Your task to perform on an android device: toggle data saver in the chrome app Image 0: 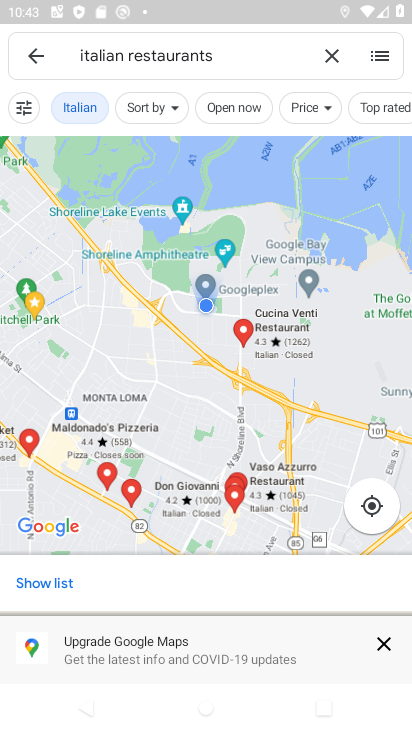
Step 0: drag from (240, 641) to (200, 235)
Your task to perform on an android device: toggle data saver in the chrome app Image 1: 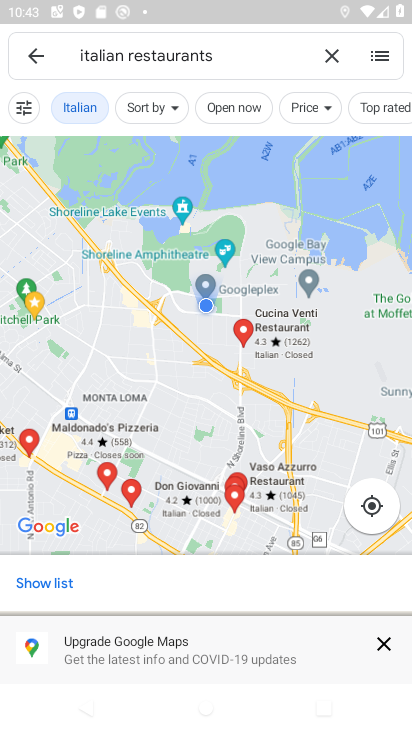
Step 1: click (46, 53)
Your task to perform on an android device: toggle data saver in the chrome app Image 2: 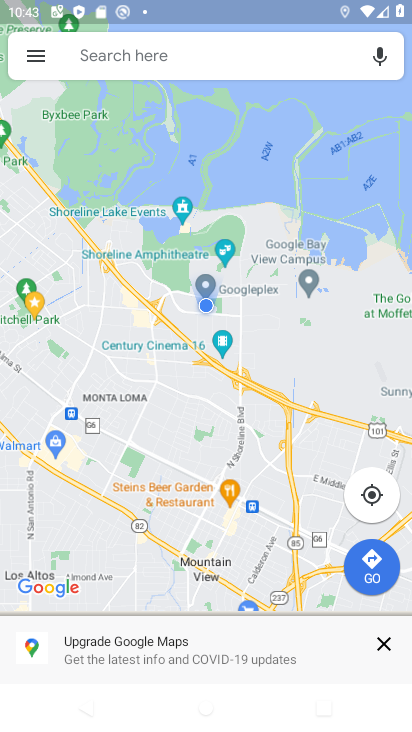
Step 2: press back button
Your task to perform on an android device: toggle data saver in the chrome app Image 3: 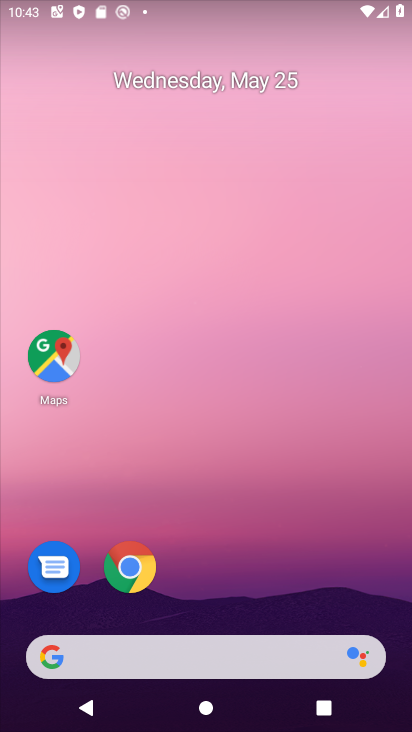
Step 3: press home button
Your task to perform on an android device: toggle data saver in the chrome app Image 4: 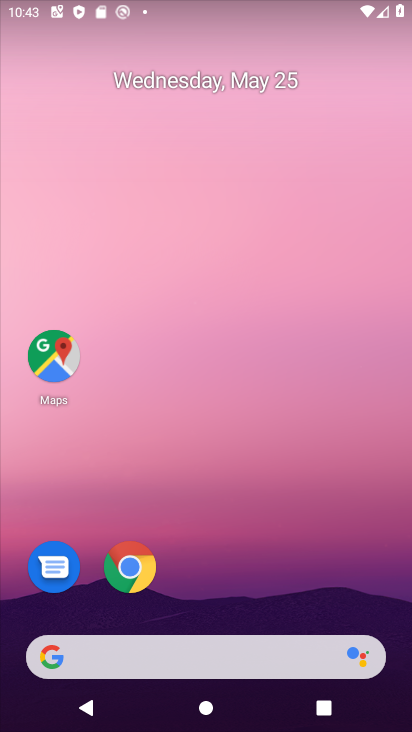
Step 4: drag from (316, 690) to (236, 4)
Your task to perform on an android device: toggle data saver in the chrome app Image 5: 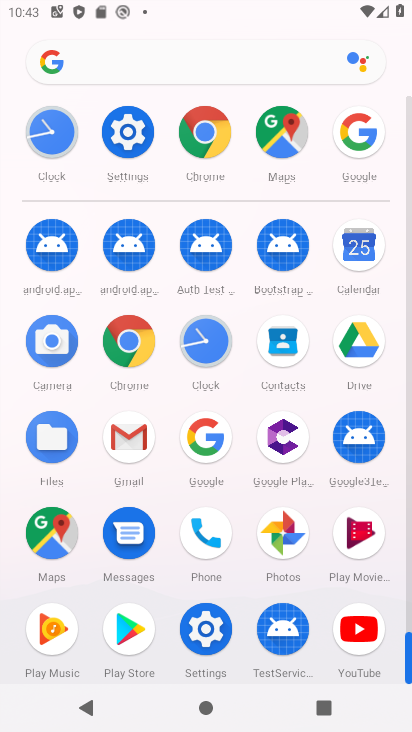
Step 5: drag from (238, 526) to (123, 85)
Your task to perform on an android device: toggle data saver in the chrome app Image 6: 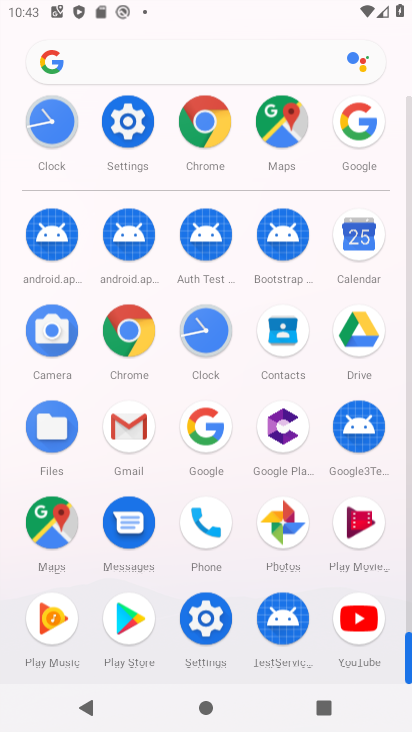
Step 6: drag from (279, 635) to (145, 93)
Your task to perform on an android device: toggle data saver in the chrome app Image 7: 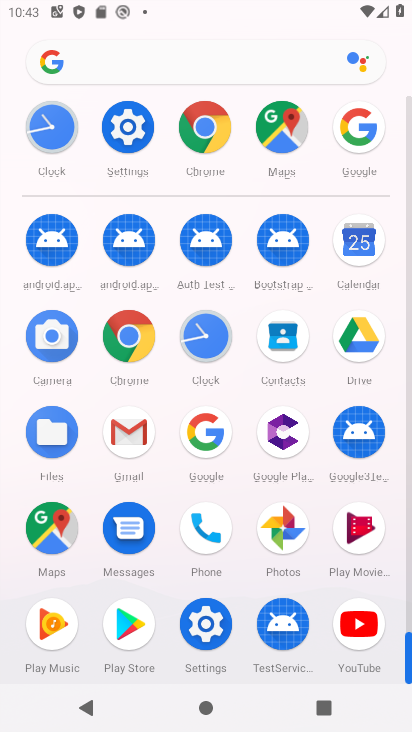
Step 7: click (212, 133)
Your task to perform on an android device: toggle data saver in the chrome app Image 8: 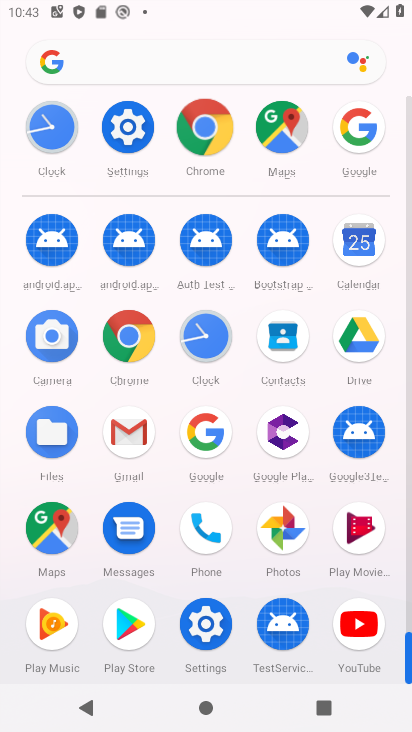
Step 8: click (212, 133)
Your task to perform on an android device: toggle data saver in the chrome app Image 9: 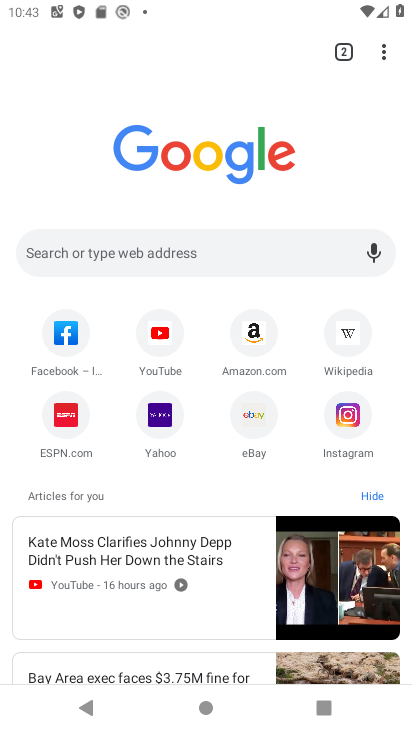
Step 9: drag from (383, 57) to (195, 439)
Your task to perform on an android device: toggle data saver in the chrome app Image 10: 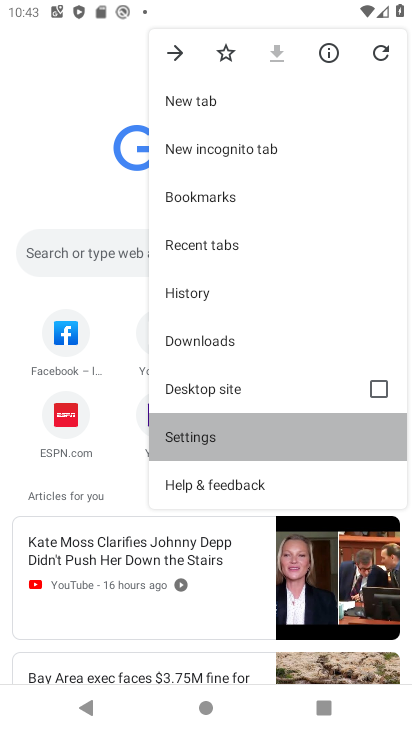
Step 10: click (200, 437)
Your task to perform on an android device: toggle data saver in the chrome app Image 11: 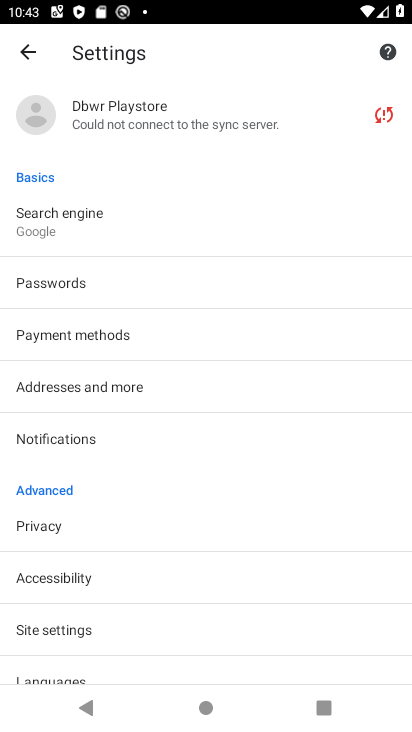
Step 11: drag from (148, 429) to (137, 171)
Your task to perform on an android device: toggle data saver in the chrome app Image 12: 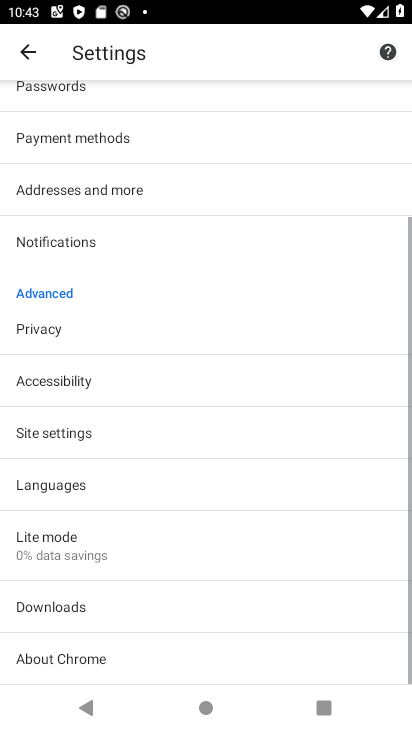
Step 12: drag from (184, 453) to (199, 264)
Your task to perform on an android device: toggle data saver in the chrome app Image 13: 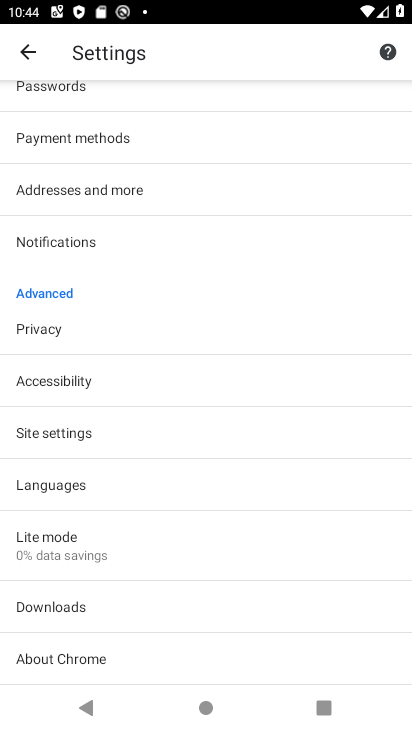
Step 13: drag from (150, 462) to (141, 165)
Your task to perform on an android device: toggle data saver in the chrome app Image 14: 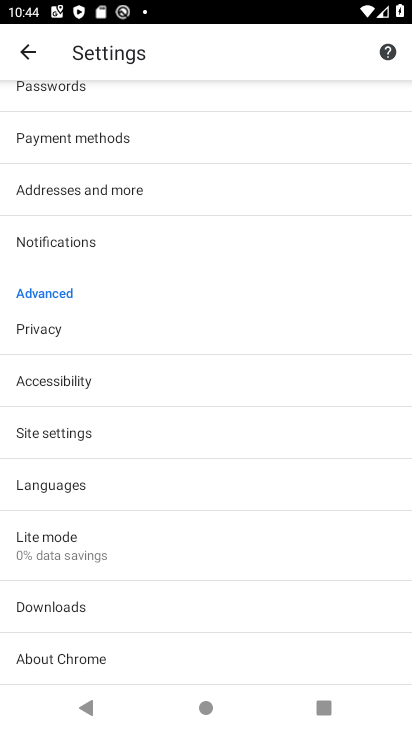
Step 14: drag from (179, 435) to (206, 92)
Your task to perform on an android device: toggle data saver in the chrome app Image 15: 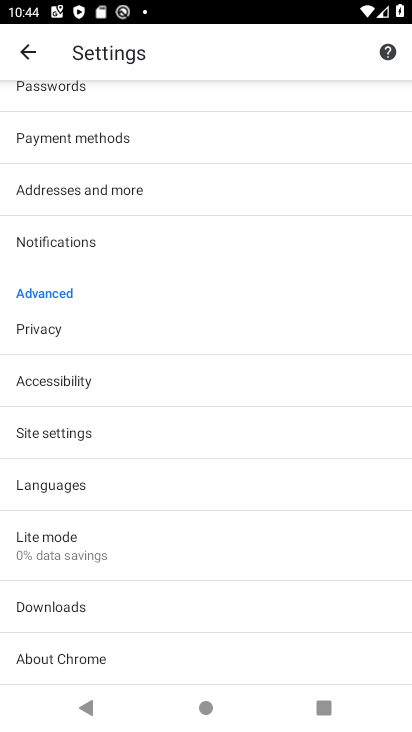
Step 15: drag from (205, 528) to (224, 123)
Your task to perform on an android device: toggle data saver in the chrome app Image 16: 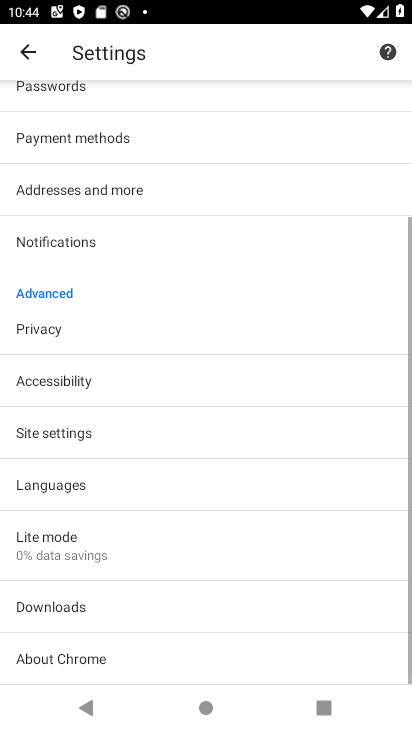
Step 16: drag from (190, 392) to (221, 27)
Your task to perform on an android device: toggle data saver in the chrome app Image 17: 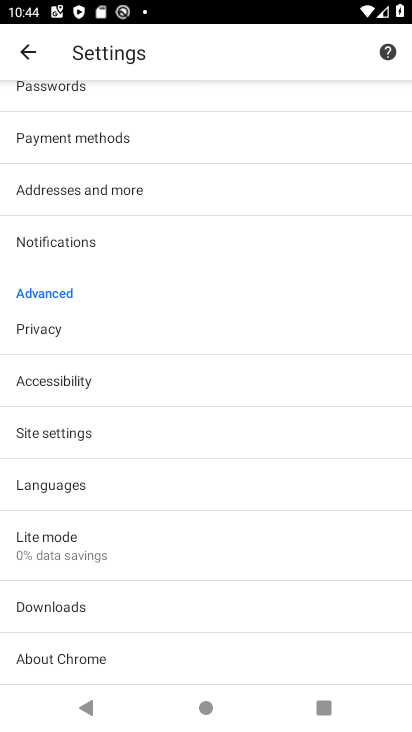
Step 17: click (51, 534)
Your task to perform on an android device: toggle data saver in the chrome app Image 18: 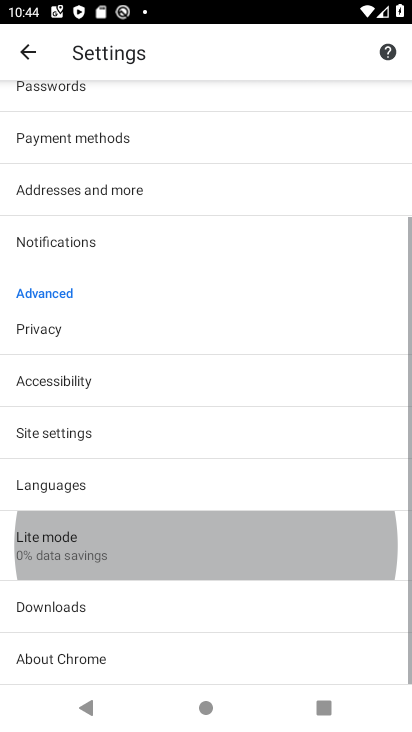
Step 18: click (51, 534)
Your task to perform on an android device: toggle data saver in the chrome app Image 19: 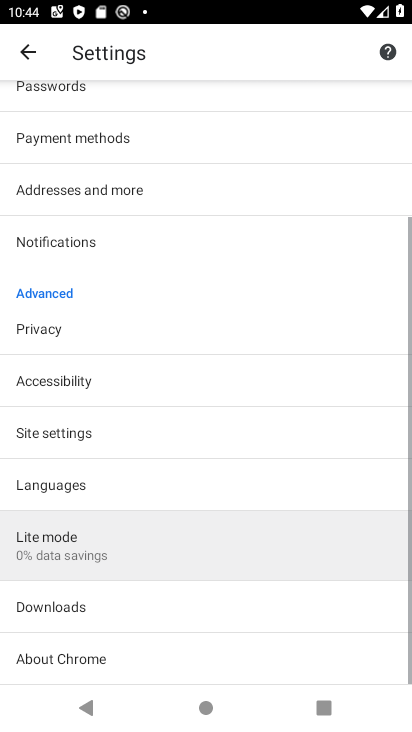
Step 19: click (49, 533)
Your task to perform on an android device: toggle data saver in the chrome app Image 20: 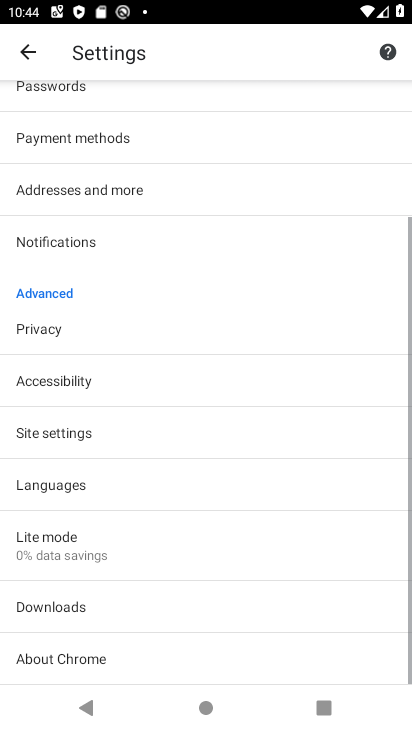
Step 20: click (49, 533)
Your task to perform on an android device: toggle data saver in the chrome app Image 21: 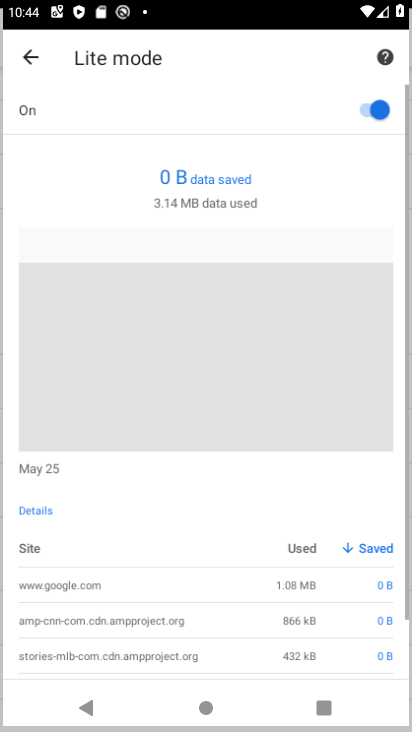
Step 21: click (49, 533)
Your task to perform on an android device: toggle data saver in the chrome app Image 22: 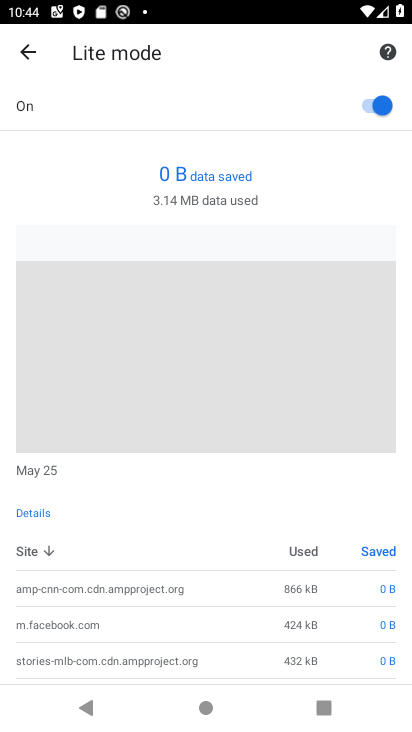
Step 22: task complete